Your task to perform on an android device: delete a single message in the gmail app Image 0: 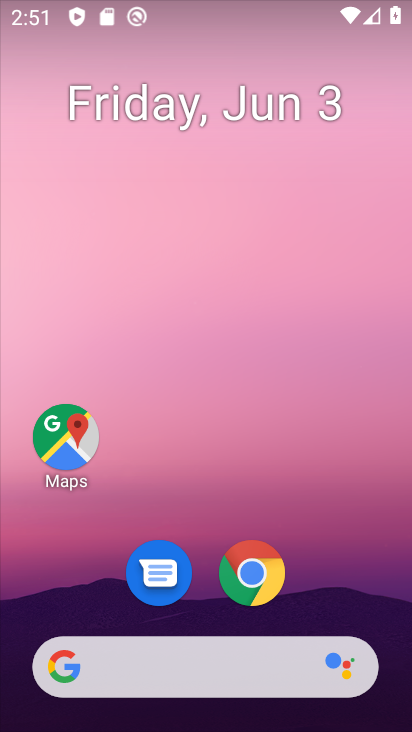
Step 0: drag from (301, 481) to (337, 132)
Your task to perform on an android device: delete a single message in the gmail app Image 1: 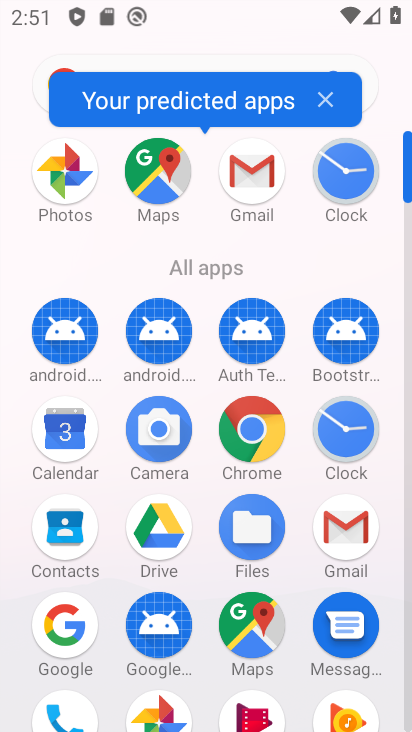
Step 1: click (242, 186)
Your task to perform on an android device: delete a single message in the gmail app Image 2: 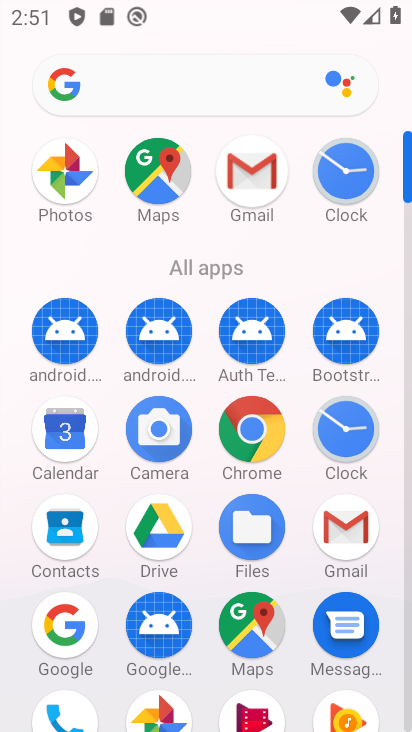
Step 2: click (242, 186)
Your task to perform on an android device: delete a single message in the gmail app Image 3: 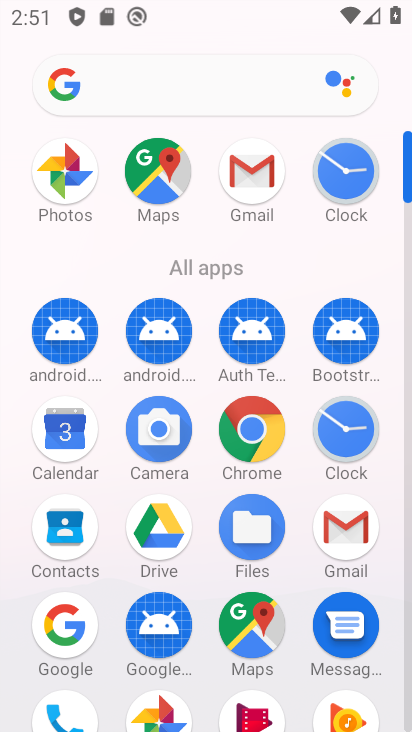
Step 3: click (247, 173)
Your task to perform on an android device: delete a single message in the gmail app Image 4: 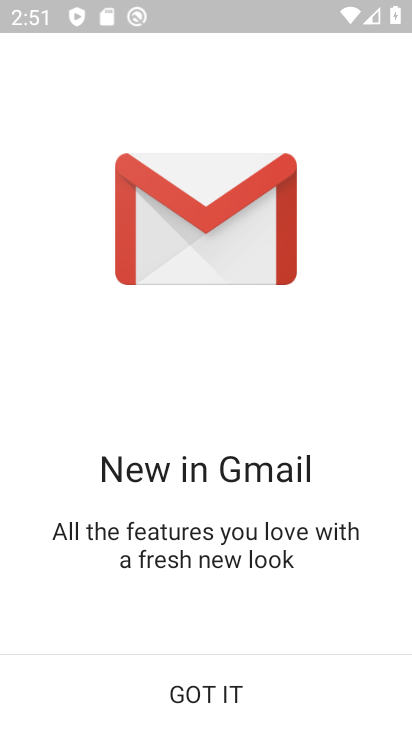
Step 4: click (192, 689)
Your task to perform on an android device: delete a single message in the gmail app Image 5: 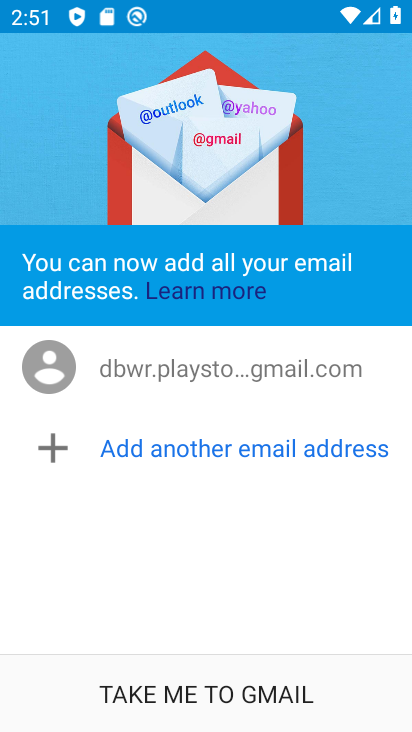
Step 5: click (192, 689)
Your task to perform on an android device: delete a single message in the gmail app Image 6: 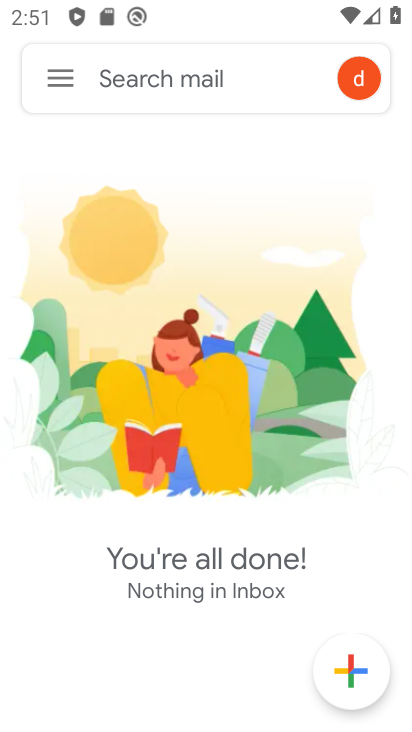
Step 6: click (59, 84)
Your task to perform on an android device: delete a single message in the gmail app Image 7: 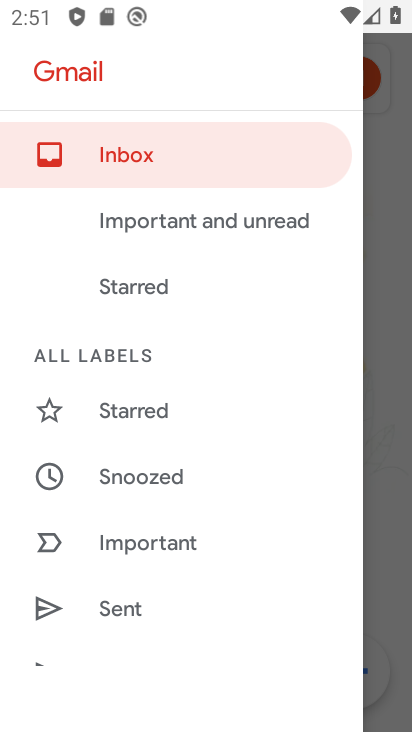
Step 7: task complete